Your task to perform on an android device: Search for Italian restaurants on Maps Image 0: 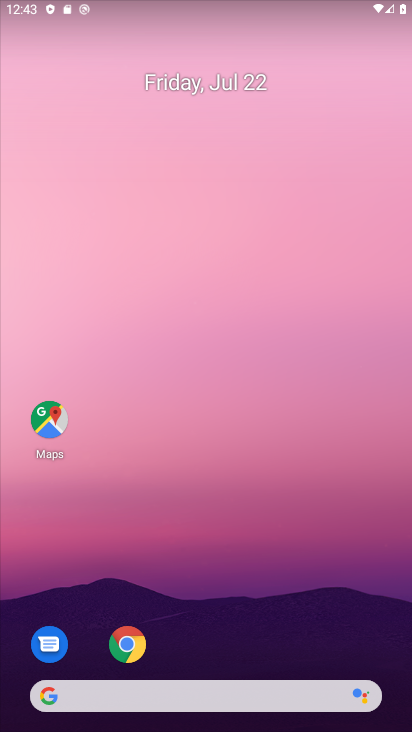
Step 0: click (44, 421)
Your task to perform on an android device: Search for Italian restaurants on Maps Image 1: 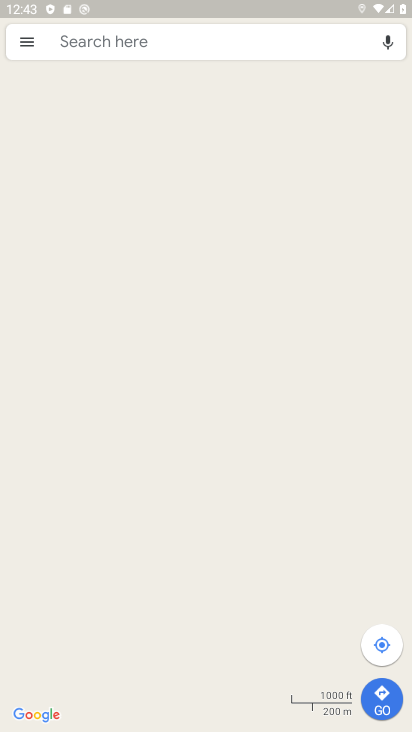
Step 1: click (90, 36)
Your task to perform on an android device: Search for Italian restaurants on Maps Image 2: 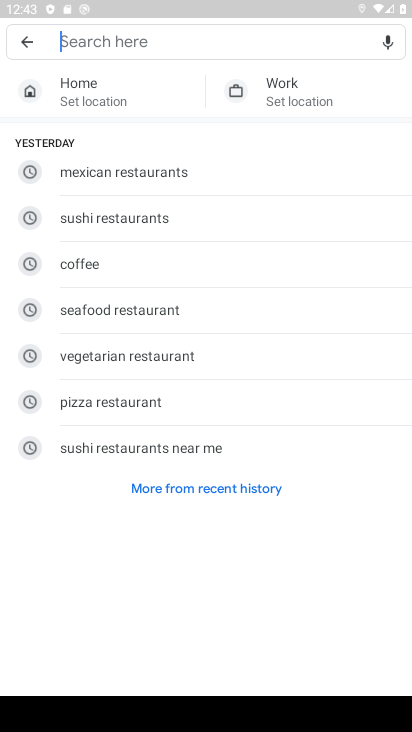
Step 2: type "italian restaurant"
Your task to perform on an android device: Search for Italian restaurants on Maps Image 3: 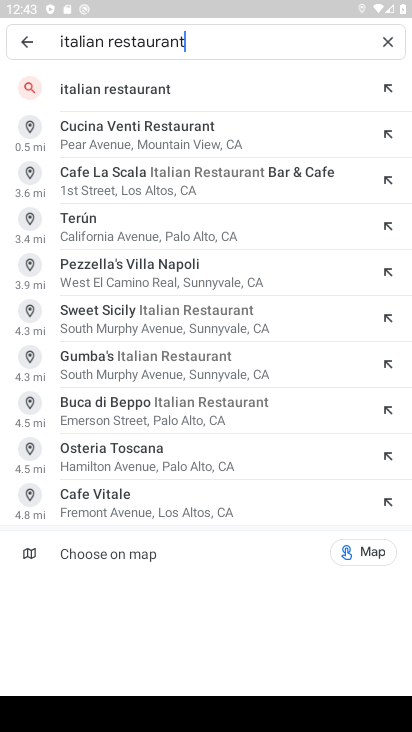
Step 3: click (127, 84)
Your task to perform on an android device: Search for Italian restaurants on Maps Image 4: 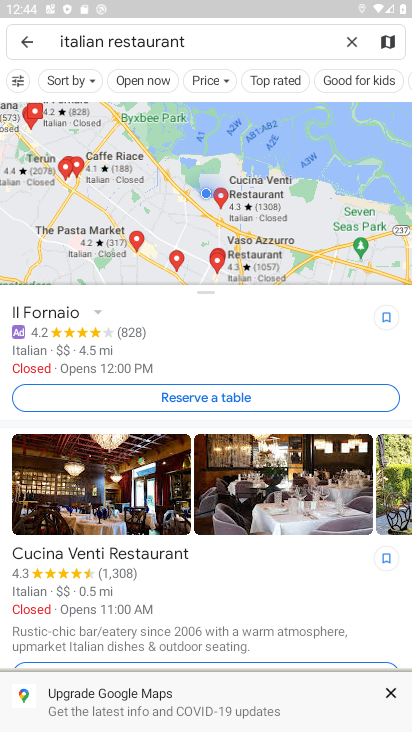
Step 4: task complete